Your task to perform on an android device: What's on my calendar today? Image 0: 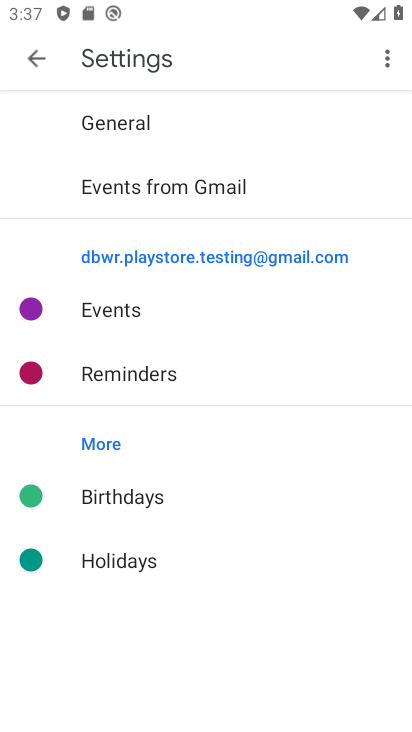
Step 0: press home button
Your task to perform on an android device: What's on my calendar today? Image 1: 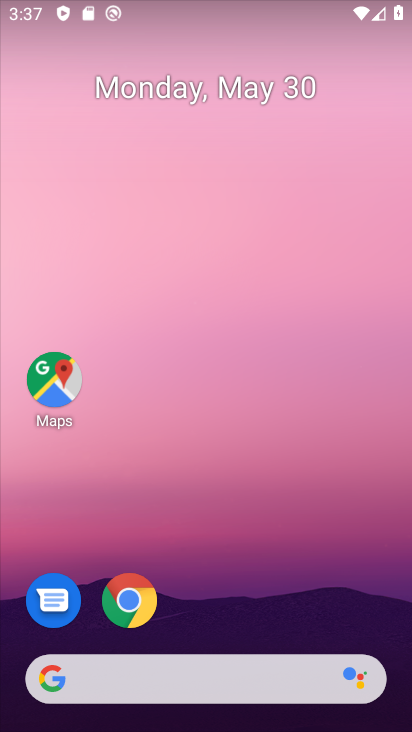
Step 1: drag from (238, 632) to (244, 197)
Your task to perform on an android device: What's on my calendar today? Image 2: 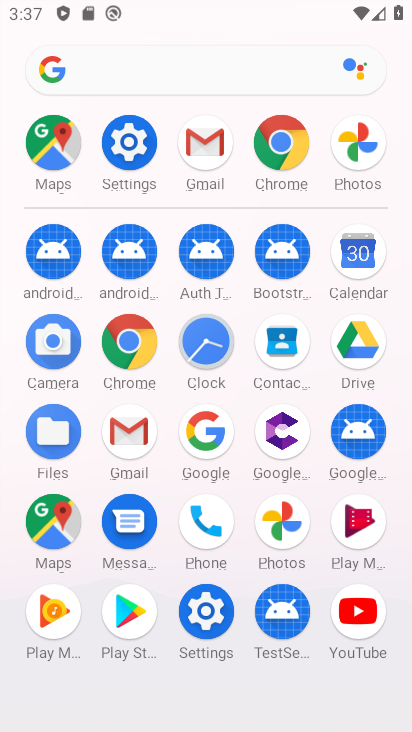
Step 2: click (376, 238)
Your task to perform on an android device: What's on my calendar today? Image 3: 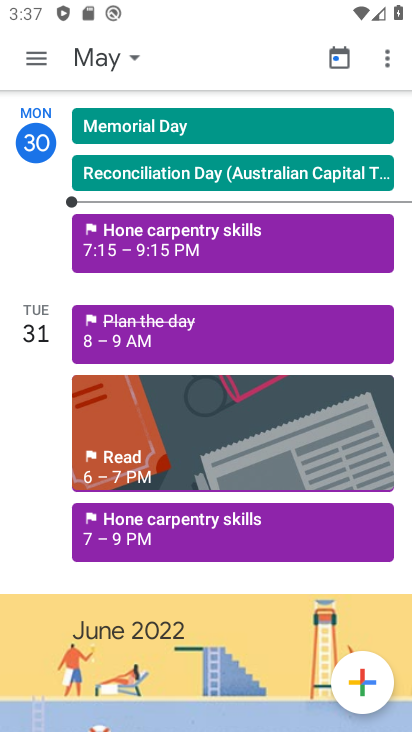
Step 3: task complete